Your task to perform on an android device: delete the emails in spam in the gmail app Image 0: 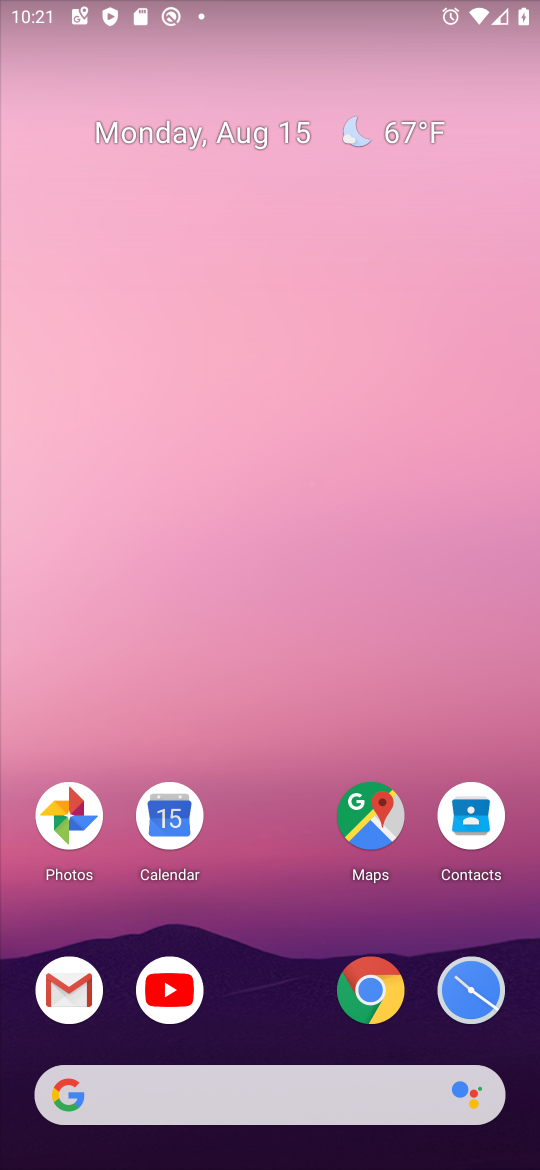
Step 0: click (67, 978)
Your task to perform on an android device: delete the emails in spam in the gmail app Image 1: 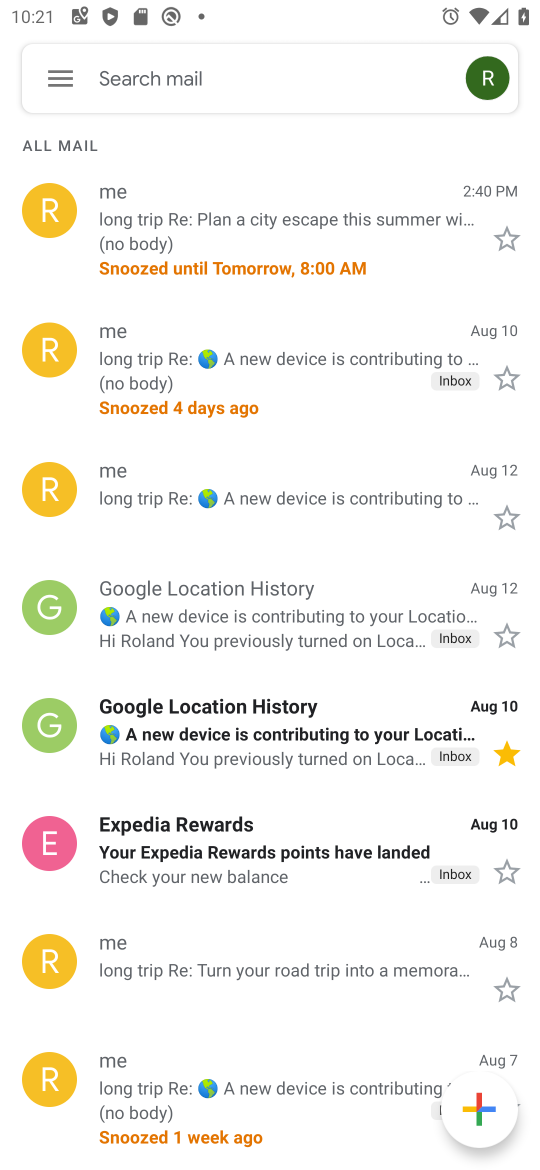
Step 1: click (64, 73)
Your task to perform on an android device: delete the emails in spam in the gmail app Image 2: 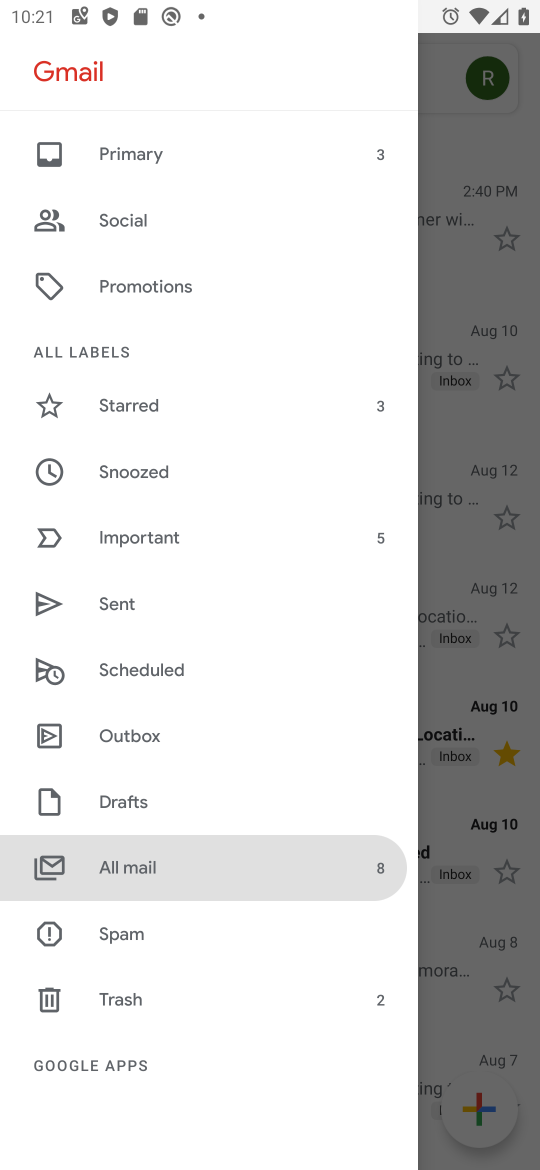
Step 2: click (128, 922)
Your task to perform on an android device: delete the emails in spam in the gmail app Image 3: 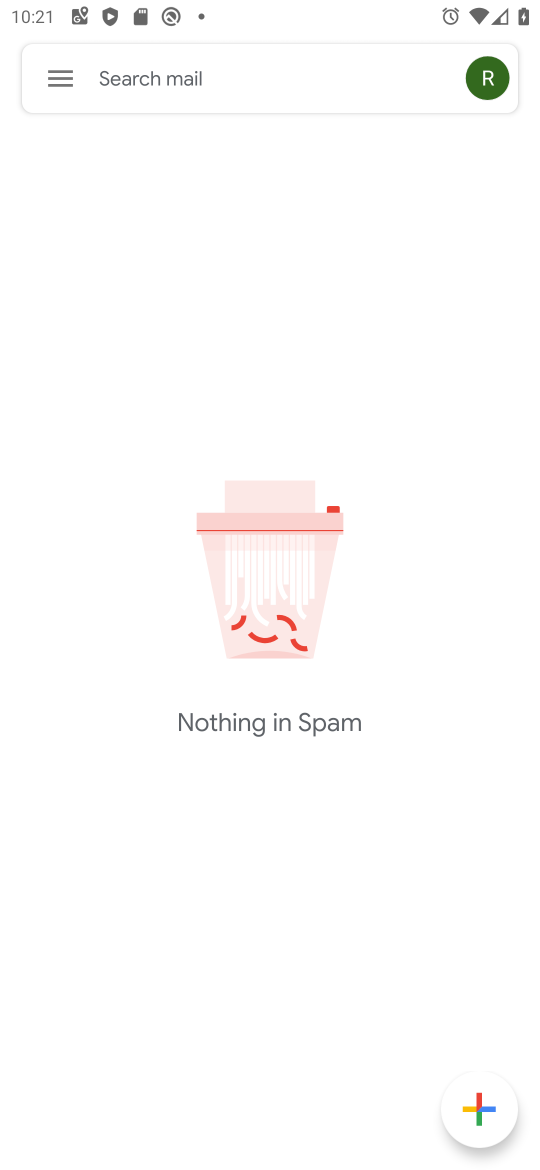
Step 3: task complete